Your task to perform on an android device: What's on my calendar today? Image 0: 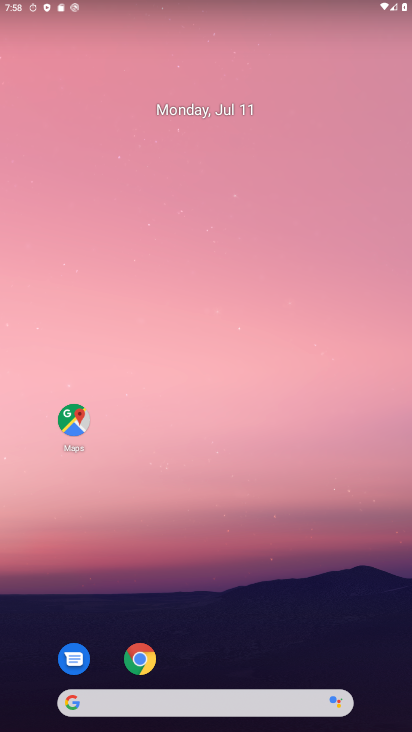
Step 0: drag from (277, 632) to (338, 87)
Your task to perform on an android device: What's on my calendar today? Image 1: 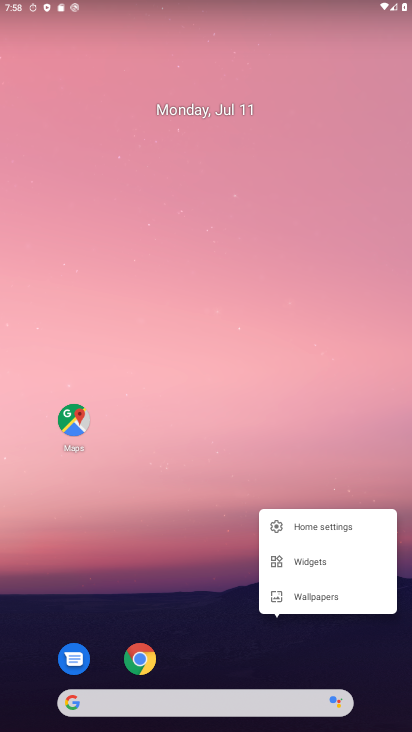
Step 1: click (187, 640)
Your task to perform on an android device: What's on my calendar today? Image 2: 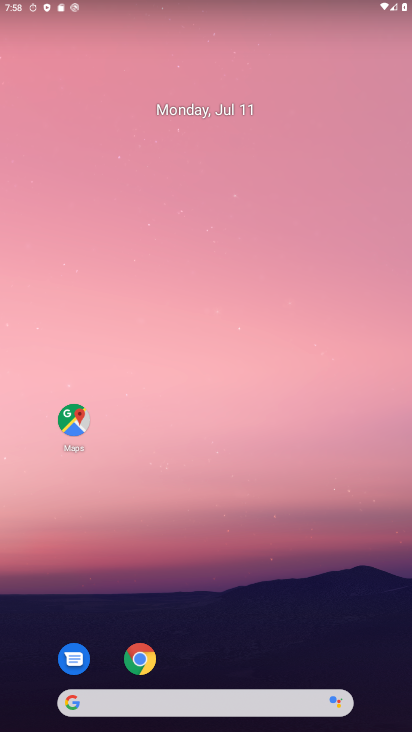
Step 2: drag from (232, 669) to (262, 35)
Your task to perform on an android device: What's on my calendar today? Image 3: 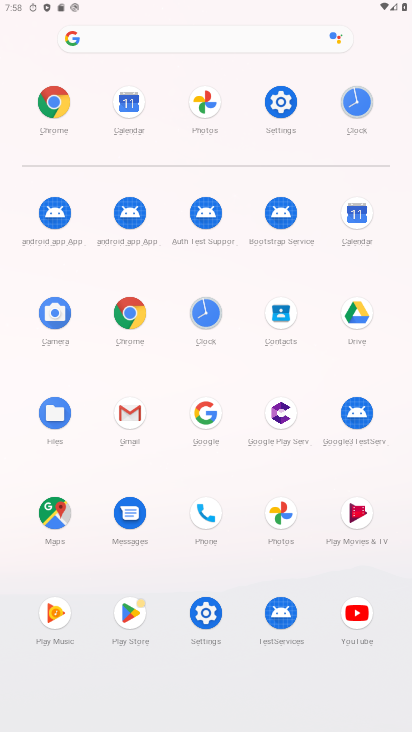
Step 3: click (356, 229)
Your task to perform on an android device: What's on my calendar today? Image 4: 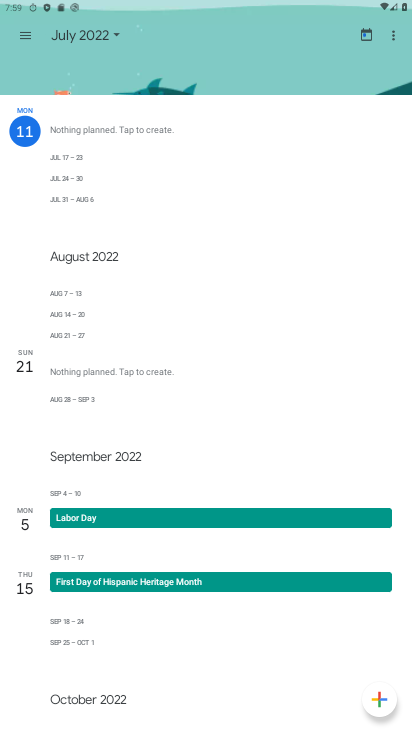
Step 4: task complete